Your task to perform on an android device: move a message to another label in the gmail app Image 0: 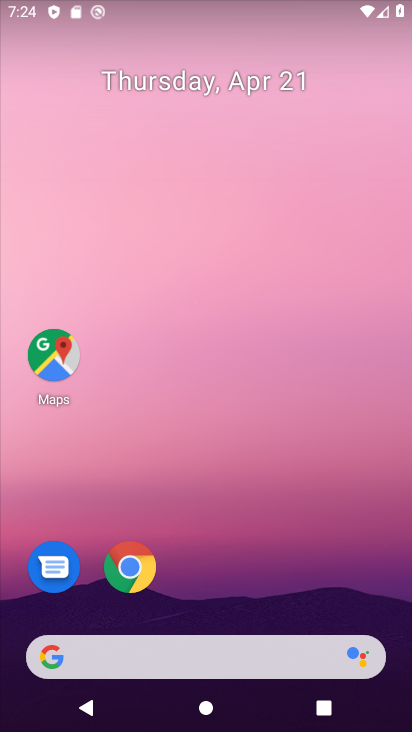
Step 0: drag from (276, 412) to (266, 171)
Your task to perform on an android device: move a message to another label in the gmail app Image 1: 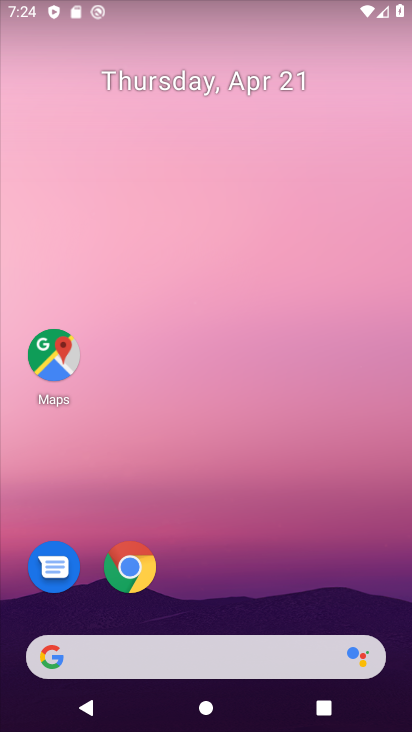
Step 1: drag from (251, 401) to (215, 142)
Your task to perform on an android device: move a message to another label in the gmail app Image 2: 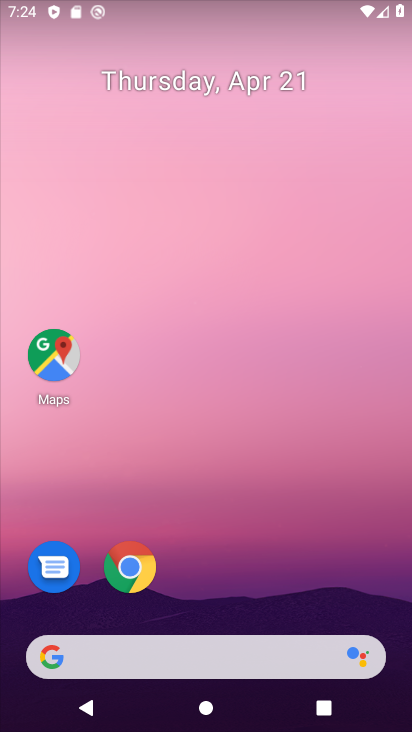
Step 2: drag from (256, 580) to (300, 81)
Your task to perform on an android device: move a message to another label in the gmail app Image 3: 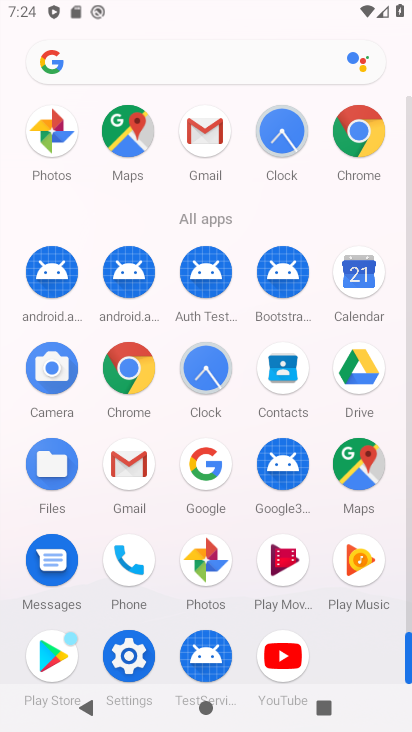
Step 3: click (200, 143)
Your task to perform on an android device: move a message to another label in the gmail app Image 4: 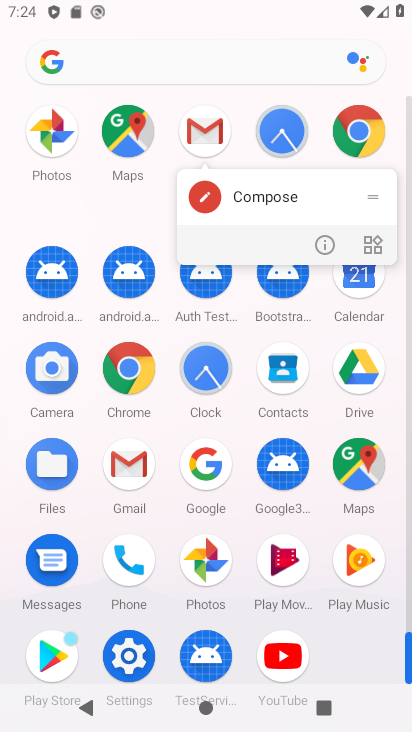
Step 4: click (200, 135)
Your task to perform on an android device: move a message to another label in the gmail app Image 5: 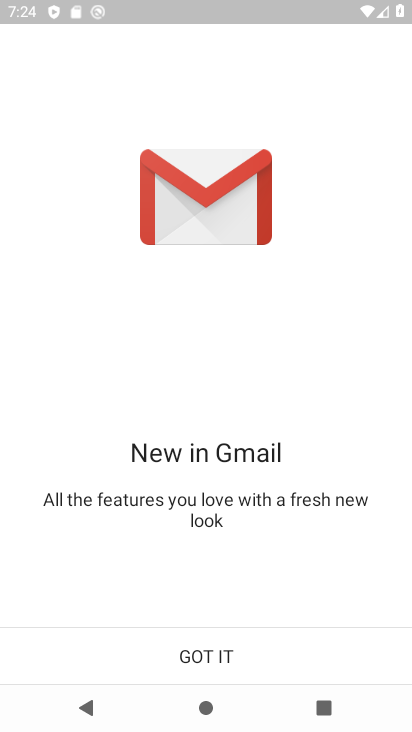
Step 5: click (182, 661)
Your task to perform on an android device: move a message to another label in the gmail app Image 6: 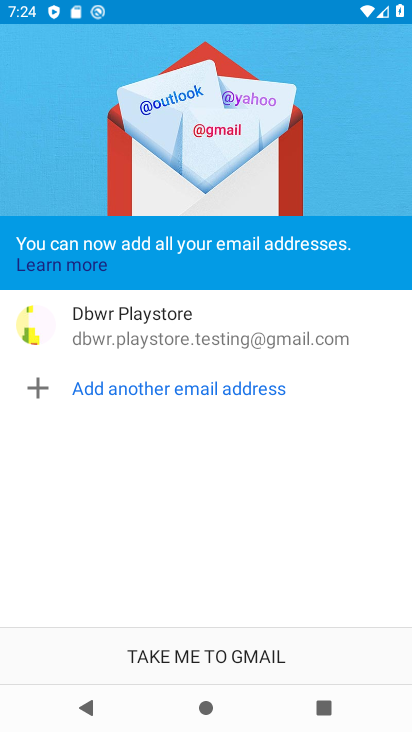
Step 6: click (204, 662)
Your task to perform on an android device: move a message to another label in the gmail app Image 7: 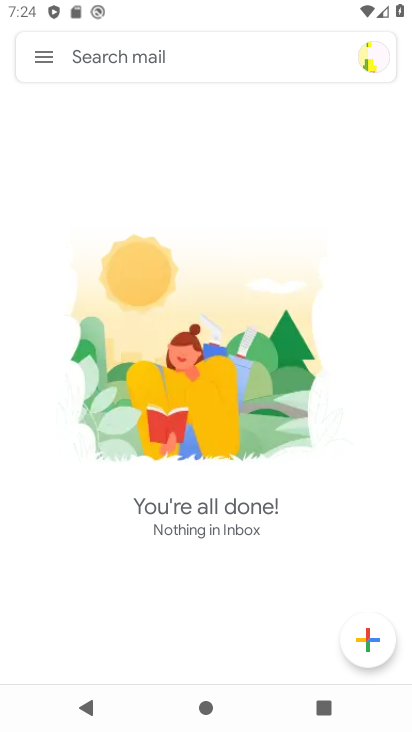
Step 7: click (46, 62)
Your task to perform on an android device: move a message to another label in the gmail app Image 8: 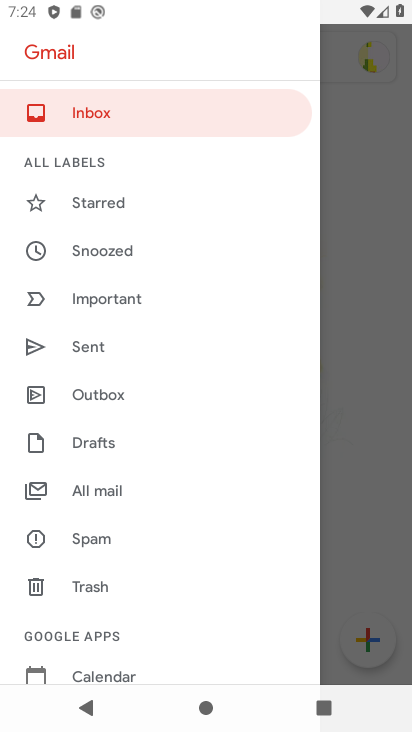
Step 8: drag from (133, 600) to (159, 306)
Your task to perform on an android device: move a message to another label in the gmail app Image 9: 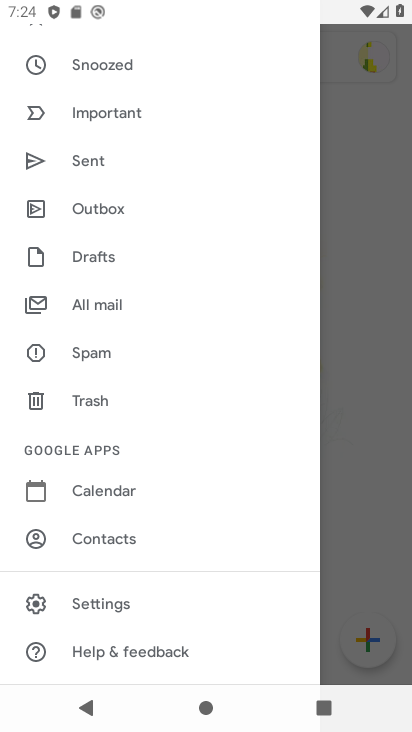
Step 9: drag from (189, 273) to (188, 474)
Your task to perform on an android device: move a message to another label in the gmail app Image 10: 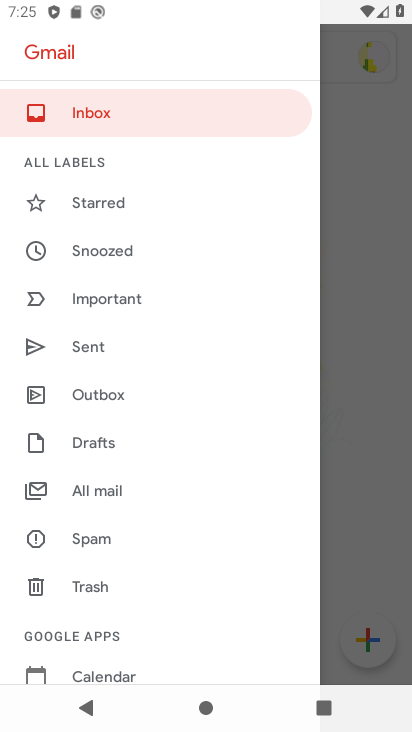
Step 10: drag from (144, 547) to (164, 328)
Your task to perform on an android device: move a message to another label in the gmail app Image 11: 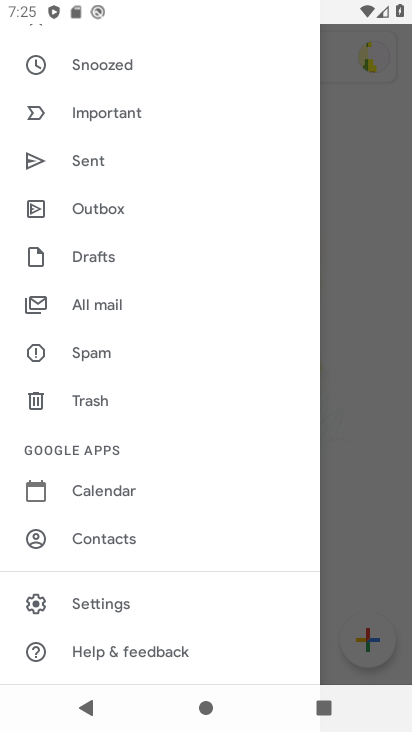
Step 11: drag from (205, 528) to (222, 352)
Your task to perform on an android device: move a message to another label in the gmail app Image 12: 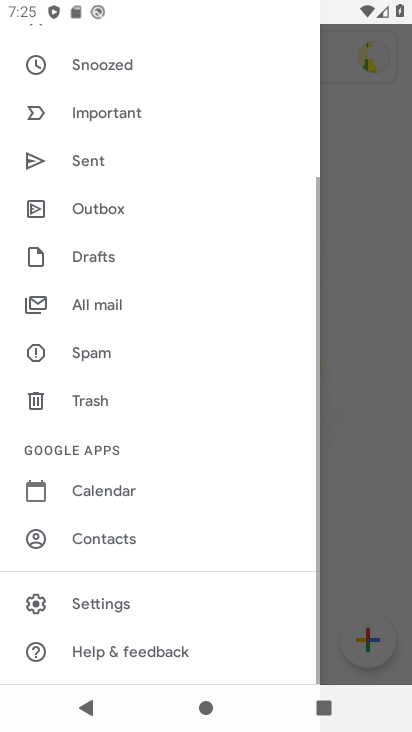
Step 12: drag from (217, 243) to (191, 454)
Your task to perform on an android device: move a message to another label in the gmail app Image 13: 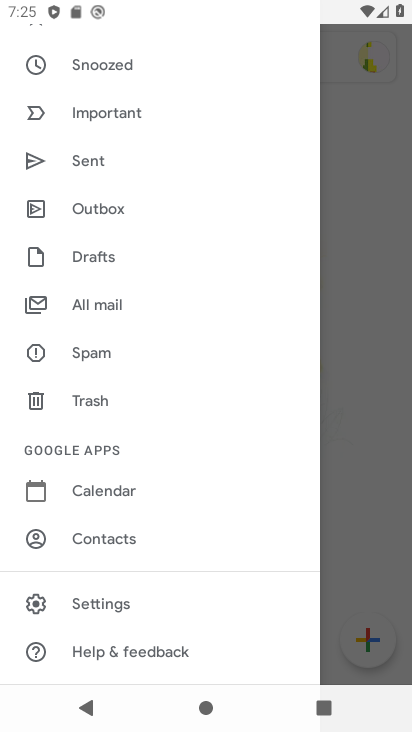
Step 13: click (119, 287)
Your task to perform on an android device: move a message to another label in the gmail app Image 14: 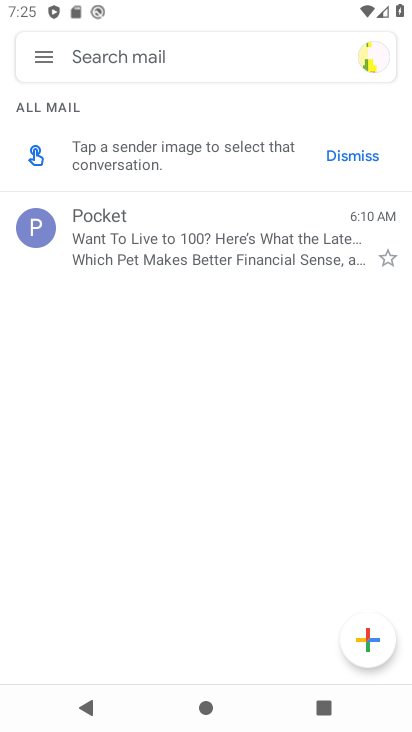
Step 14: click (294, 247)
Your task to perform on an android device: move a message to another label in the gmail app Image 15: 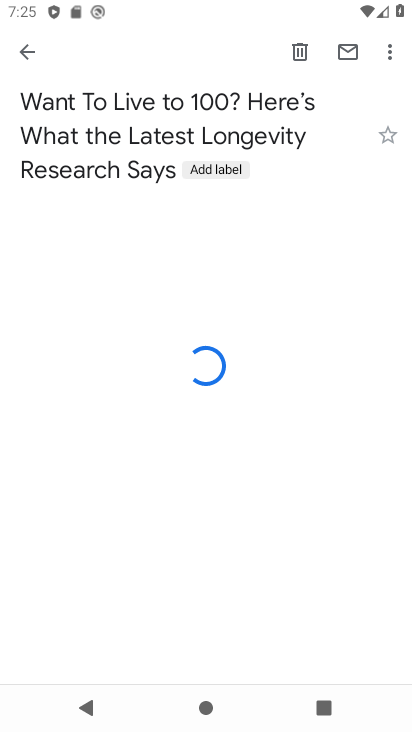
Step 15: click (210, 175)
Your task to perform on an android device: move a message to another label in the gmail app Image 16: 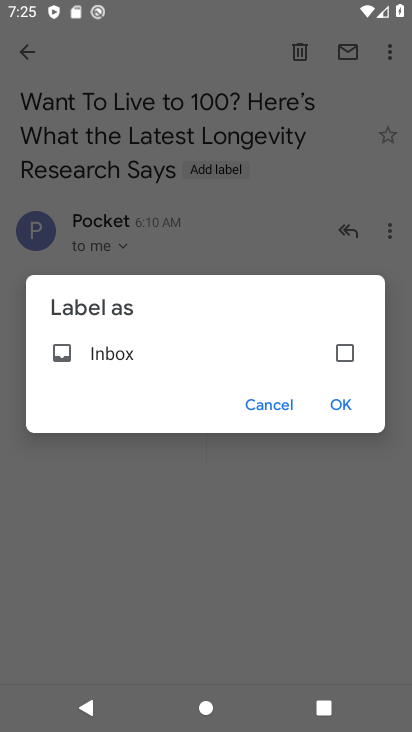
Step 16: click (347, 353)
Your task to perform on an android device: move a message to another label in the gmail app Image 17: 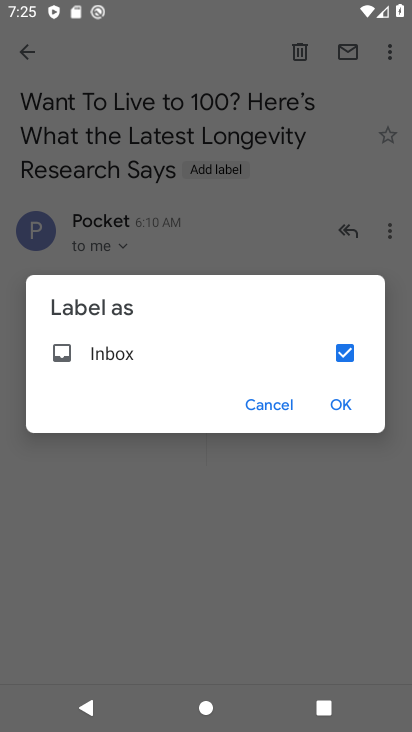
Step 17: click (339, 408)
Your task to perform on an android device: move a message to another label in the gmail app Image 18: 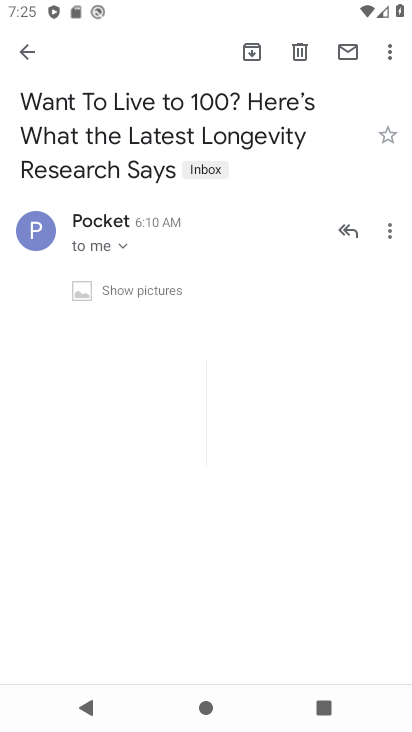
Step 18: task complete